Your task to perform on an android device: change keyboard looks Image 0: 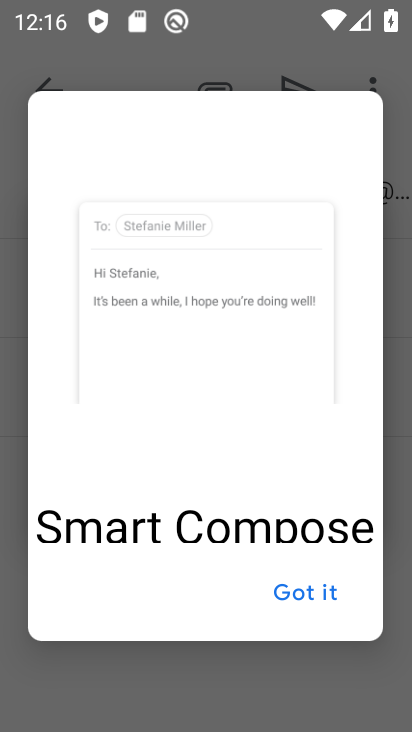
Step 0: press home button
Your task to perform on an android device: change keyboard looks Image 1: 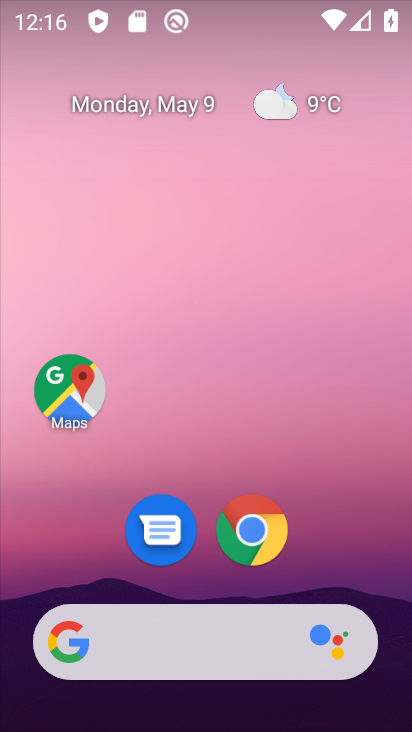
Step 1: drag from (310, 566) to (310, 261)
Your task to perform on an android device: change keyboard looks Image 2: 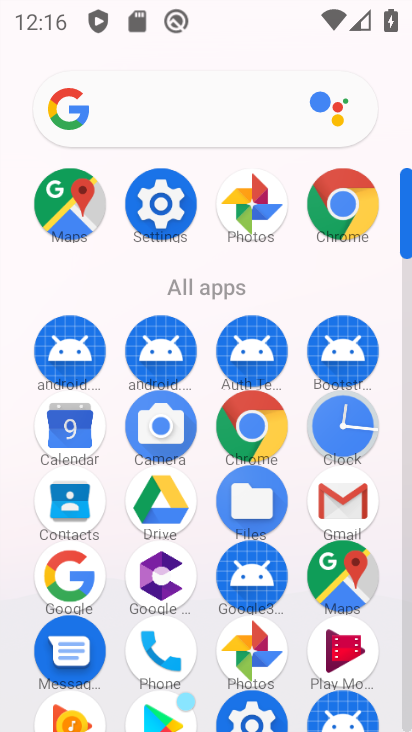
Step 2: click (152, 188)
Your task to perform on an android device: change keyboard looks Image 3: 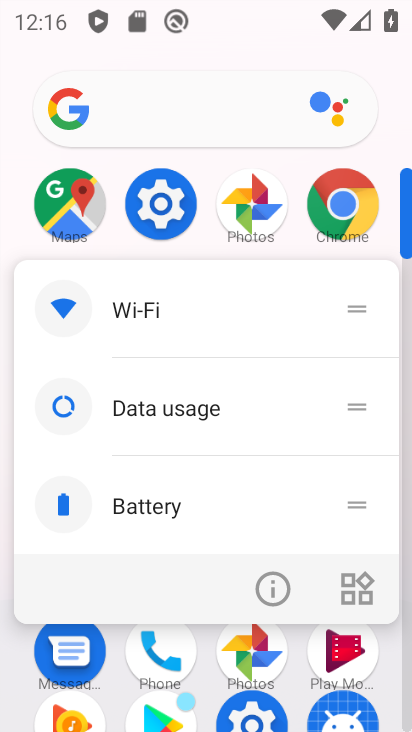
Step 3: click (152, 188)
Your task to perform on an android device: change keyboard looks Image 4: 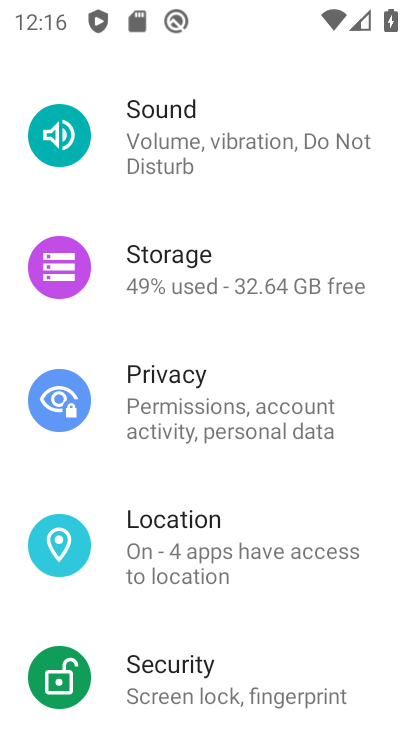
Step 4: drag from (246, 680) to (298, 150)
Your task to perform on an android device: change keyboard looks Image 5: 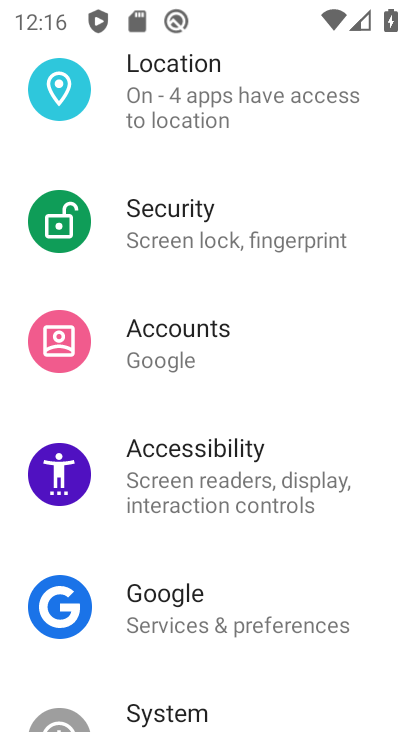
Step 5: click (228, 491)
Your task to perform on an android device: change keyboard looks Image 6: 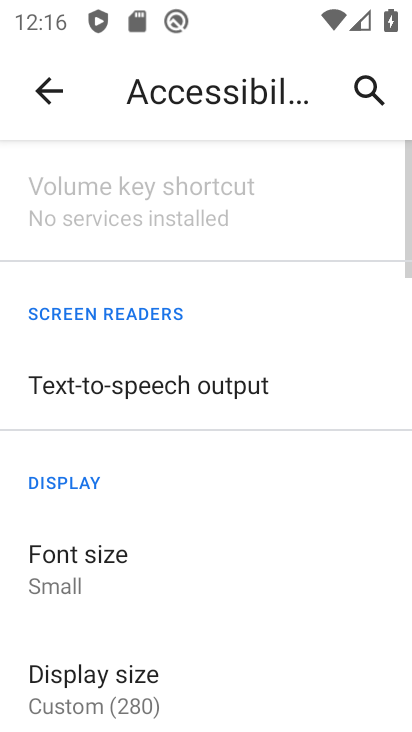
Step 6: click (105, 540)
Your task to perform on an android device: change keyboard looks Image 7: 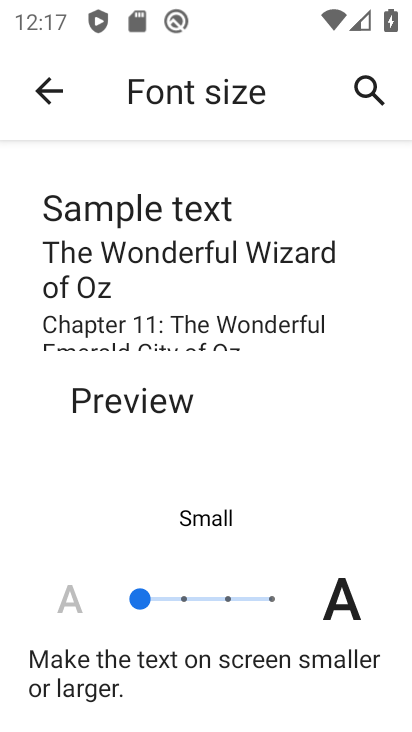
Step 7: click (55, 81)
Your task to perform on an android device: change keyboard looks Image 8: 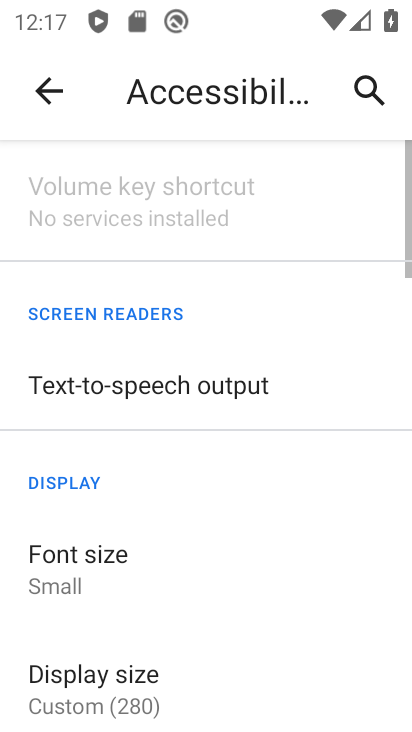
Step 8: click (65, 77)
Your task to perform on an android device: change keyboard looks Image 9: 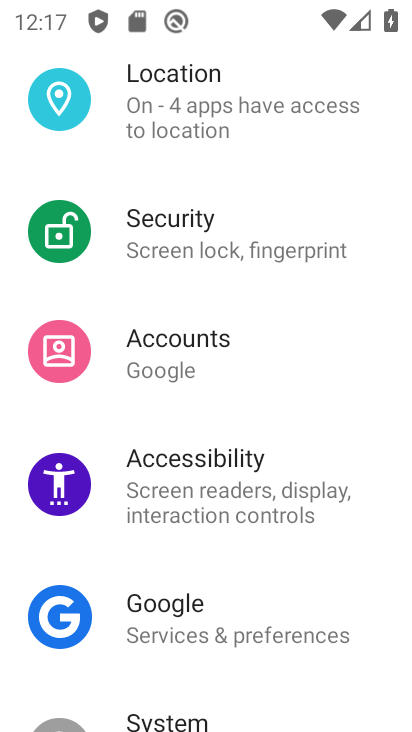
Step 9: drag from (259, 633) to (302, 336)
Your task to perform on an android device: change keyboard looks Image 10: 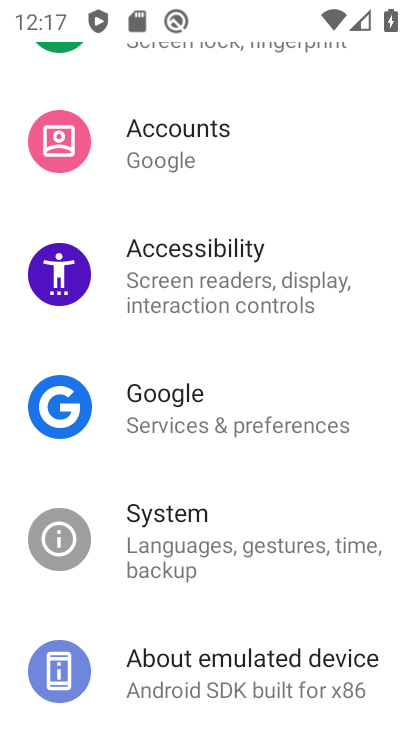
Step 10: click (186, 540)
Your task to perform on an android device: change keyboard looks Image 11: 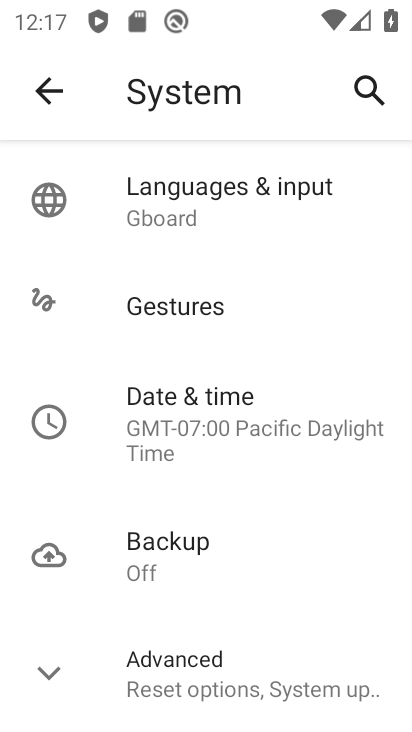
Step 11: click (183, 216)
Your task to perform on an android device: change keyboard looks Image 12: 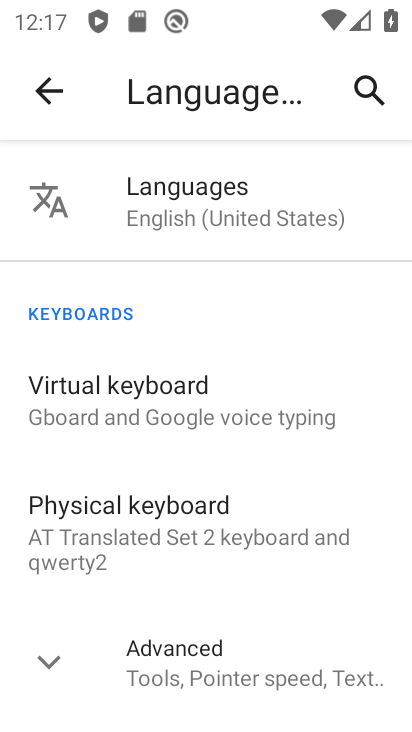
Step 12: click (175, 420)
Your task to perform on an android device: change keyboard looks Image 13: 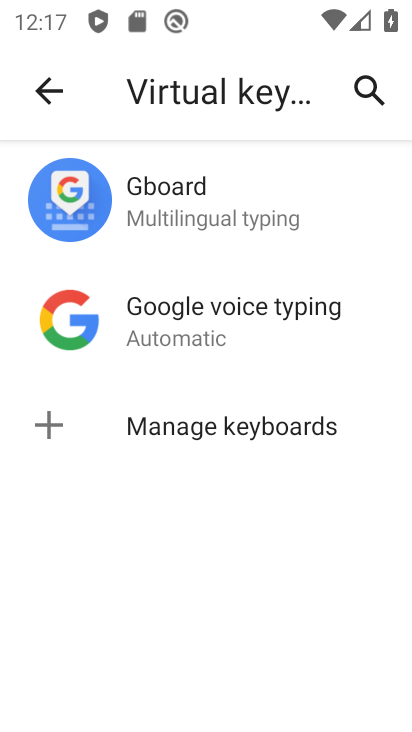
Step 13: click (198, 187)
Your task to perform on an android device: change keyboard looks Image 14: 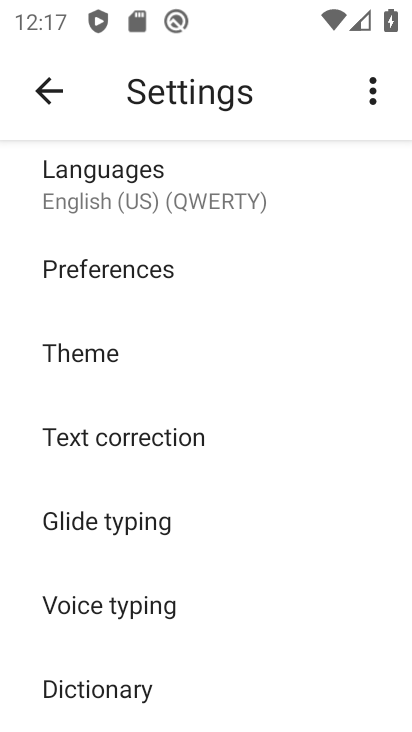
Step 14: click (101, 355)
Your task to perform on an android device: change keyboard looks Image 15: 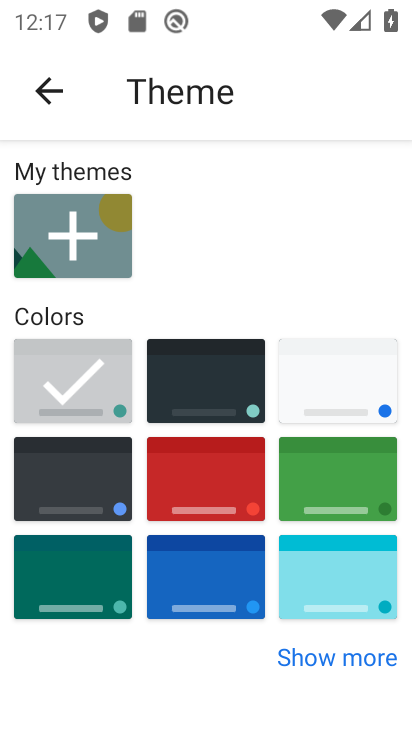
Step 15: click (175, 401)
Your task to perform on an android device: change keyboard looks Image 16: 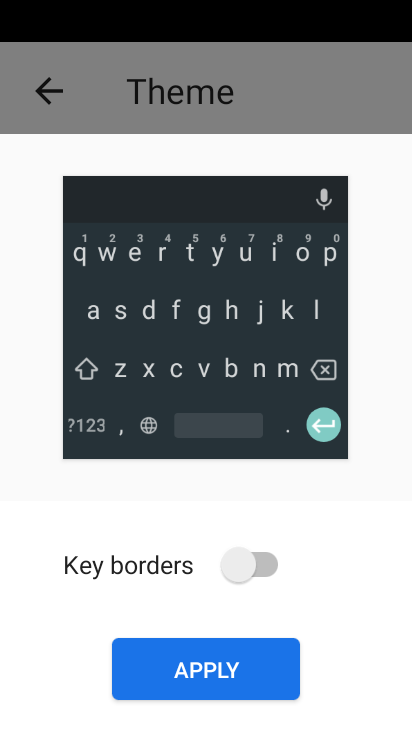
Step 16: click (257, 549)
Your task to perform on an android device: change keyboard looks Image 17: 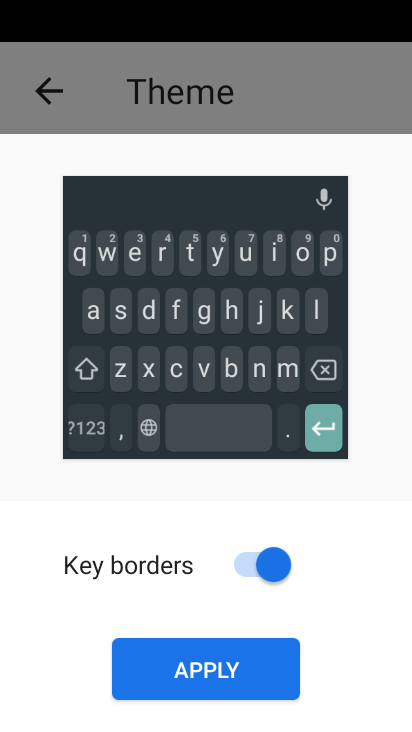
Step 17: click (248, 659)
Your task to perform on an android device: change keyboard looks Image 18: 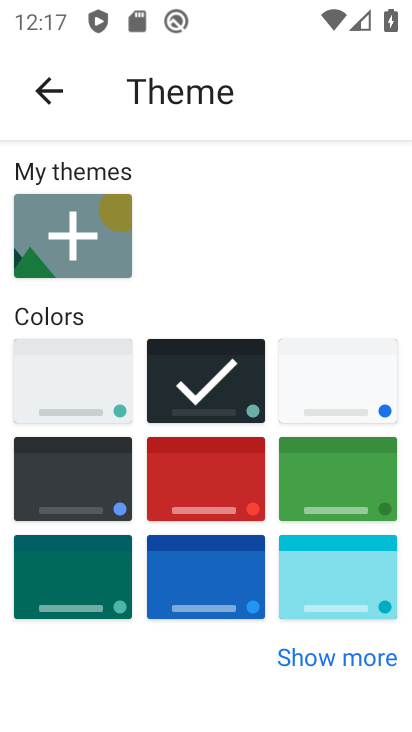
Step 18: task complete